Your task to perform on an android device: set the timer Image 0: 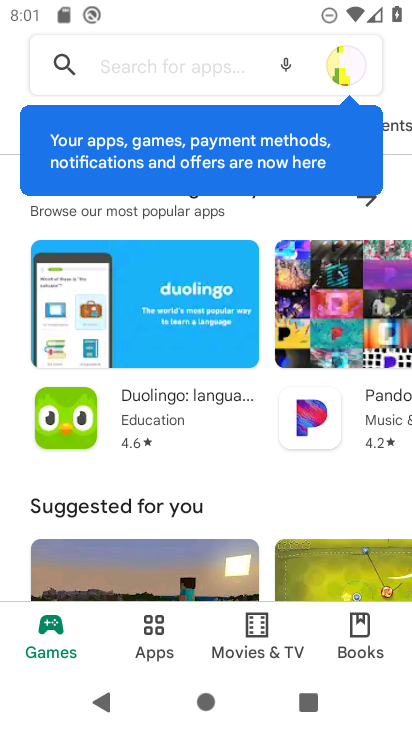
Step 0: press home button
Your task to perform on an android device: set the timer Image 1: 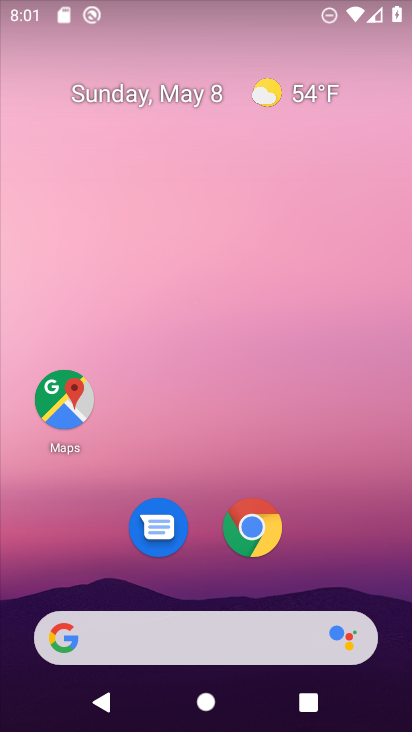
Step 1: drag from (306, 395) to (286, 76)
Your task to perform on an android device: set the timer Image 2: 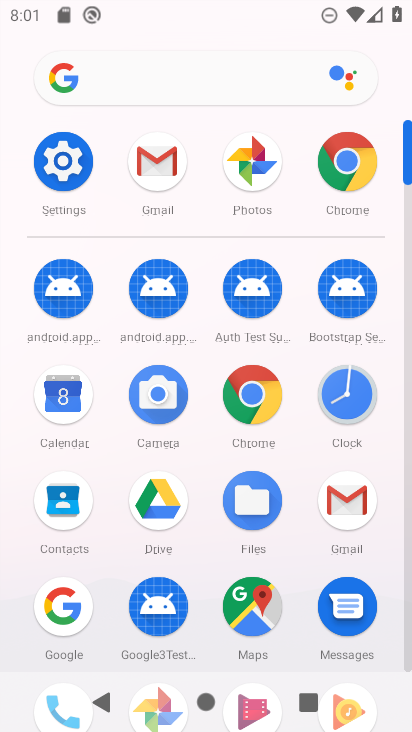
Step 2: click (341, 388)
Your task to perform on an android device: set the timer Image 3: 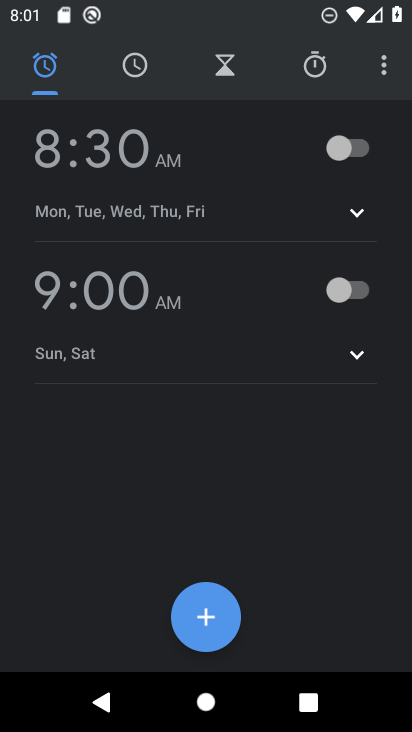
Step 3: click (228, 60)
Your task to perform on an android device: set the timer Image 4: 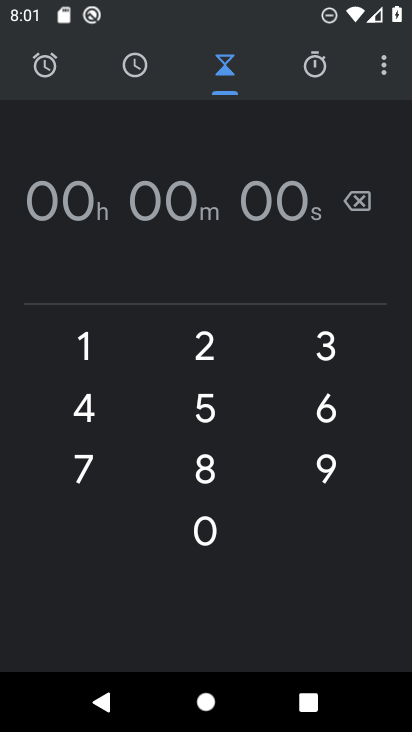
Step 4: click (199, 402)
Your task to perform on an android device: set the timer Image 5: 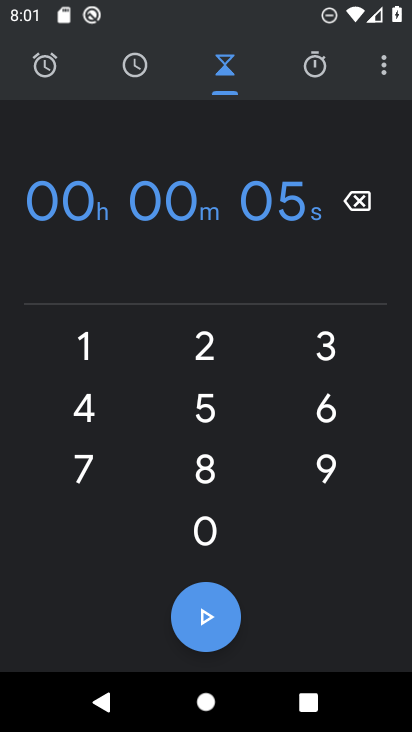
Step 5: task complete